Your task to perform on an android device: Go to Android settings Image 0: 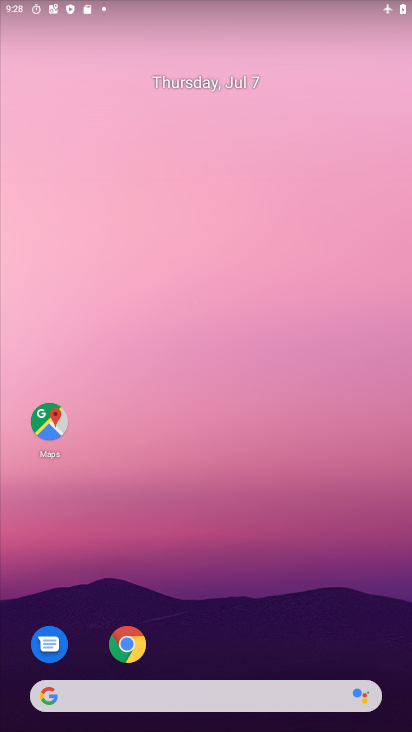
Step 0: drag from (313, 663) to (261, 151)
Your task to perform on an android device: Go to Android settings Image 1: 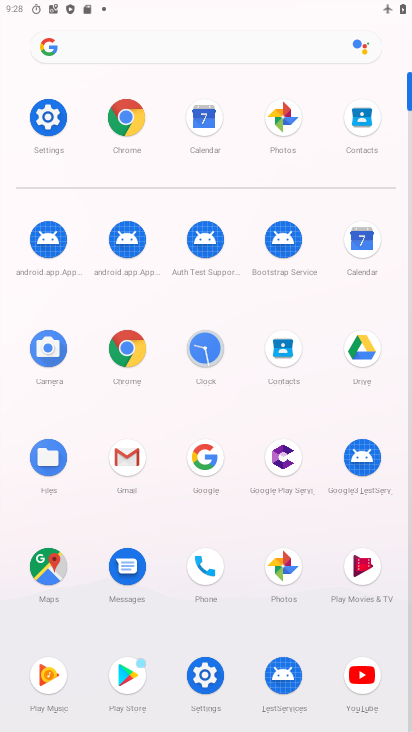
Step 1: click (53, 116)
Your task to perform on an android device: Go to Android settings Image 2: 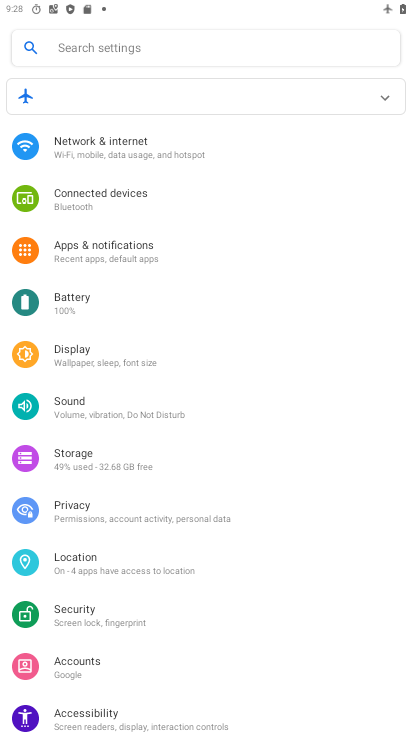
Step 2: task complete